Your task to perform on an android device: Show me popular videos on Youtube Image 0: 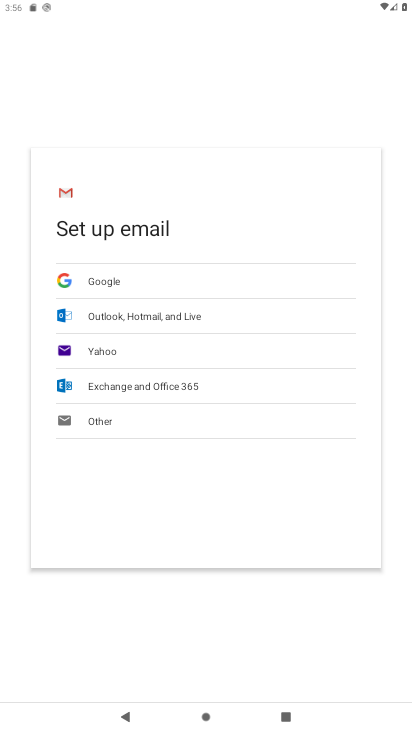
Step 0: press home button
Your task to perform on an android device: Show me popular videos on Youtube Image 1: 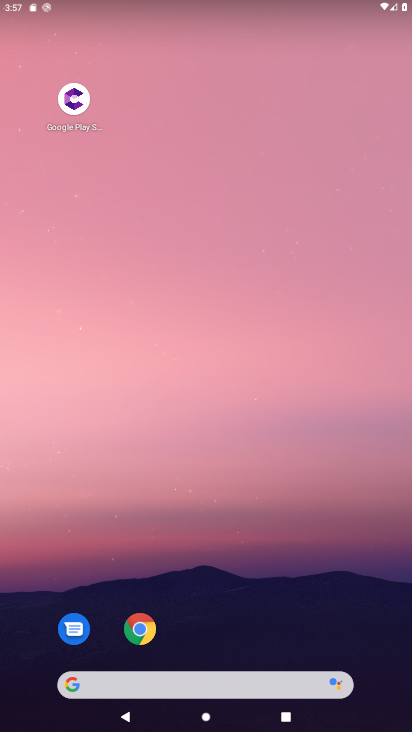
Step 1: drag from (403, 630) to (362, 17)
Your task to perform on an android device: Show me popular videos on Youtube Image 2: 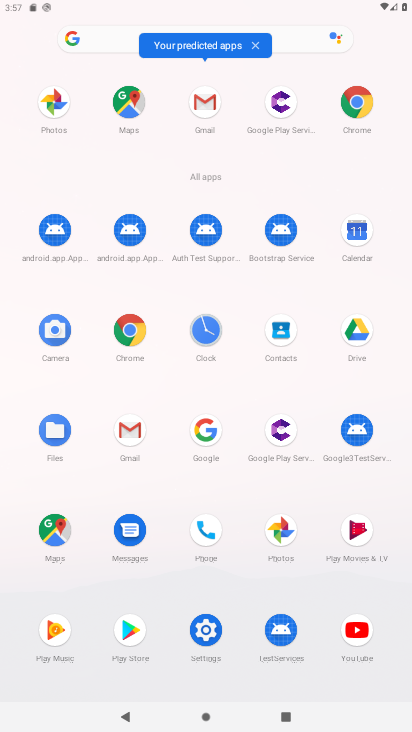
Step 2: click (356, 627)
Your task to perform on an android device: Show me popular videos on Youtube Image 3: 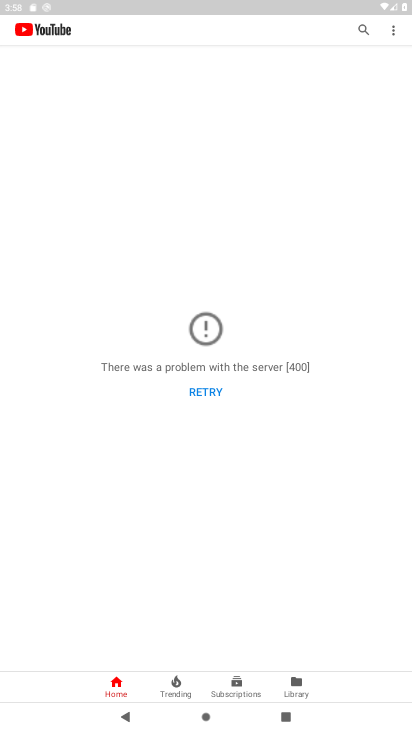
Step 3: press home button
Your task to perform on an android device: Show me popular videos on Youtube Image 4: 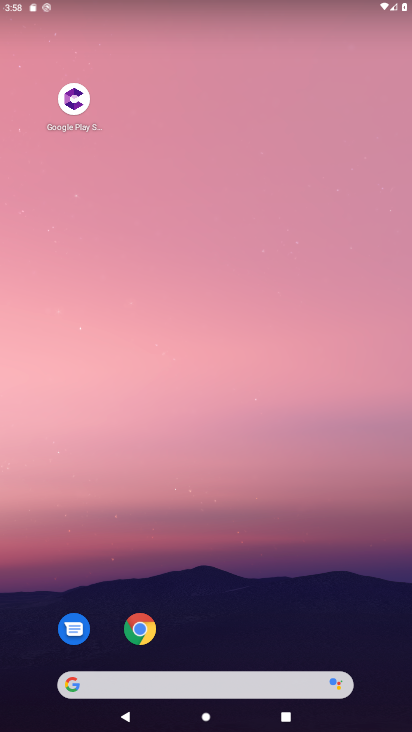
Step 4: drag from (372, 362) to (374, 147)
Your task to perform on an android device: Show me popular videos on Youtube Image 5: 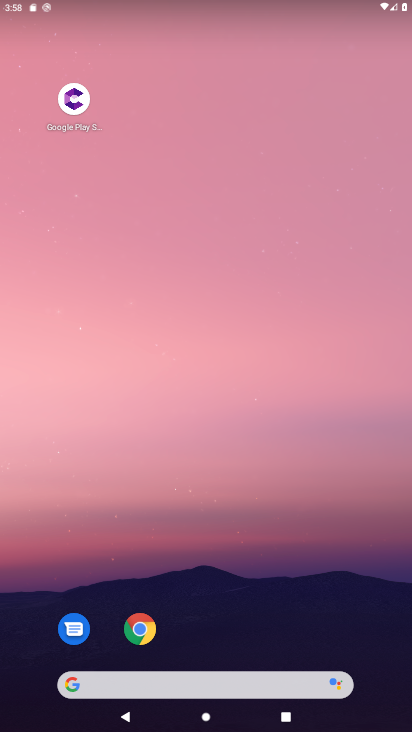
Step 5: drag from (387, 534) to (373, 95)
Your task to perform on an android device: Show me popular videos on Youtube Image 6: 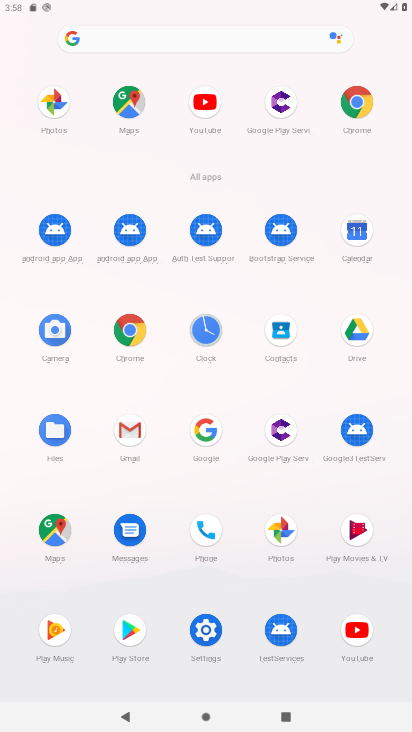
Step 6: click (349, 637)
Your task to perform on an android device: Show me popular videos on Youtube Image 7: 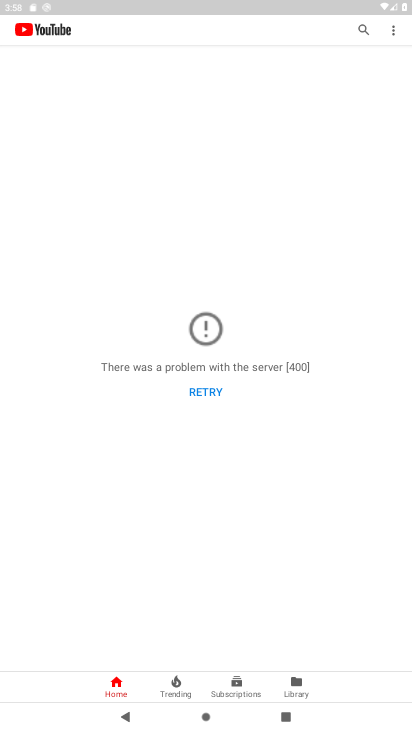
Step 7: task complete